Your task to perform on an android device: Open the Play Movies app and select the watchlist tab. Image 0: 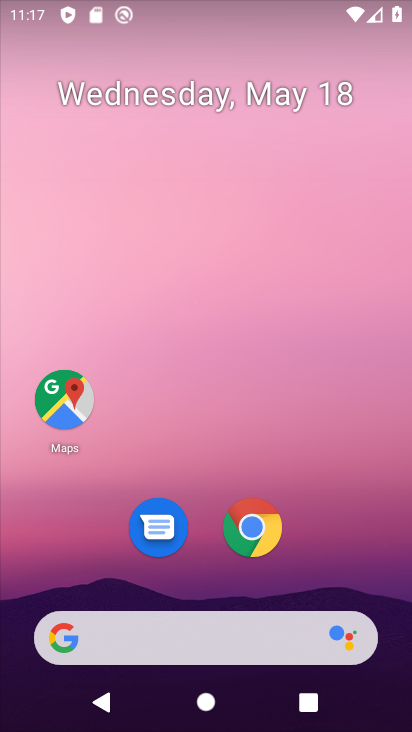
Step 0: drag from (210, 534) to (282, 10)
Your task to perform on an android device: Open the Play Movies app and select the watchlist tab. Image 1: 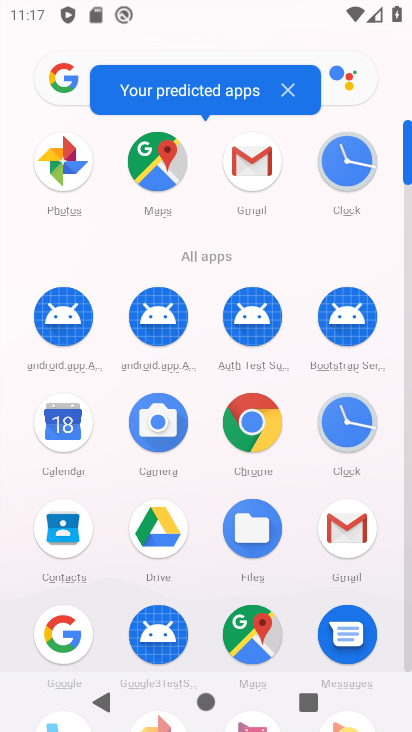
Step 1: drag from (212, 611) to (298, 177)
Your task to perform on an android device: Open the Play Movies app and select the watchlist tab. Image 2: 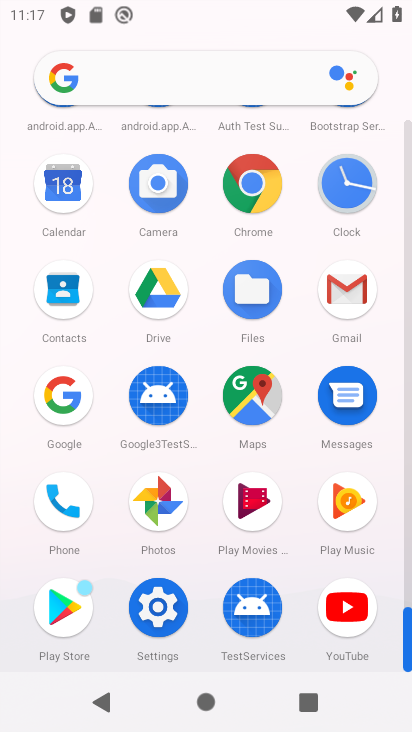
Step 2: click (262, 503)
Your task to perform on an android device: Open the Play Movies app and select the watchlist tab. Image 3: 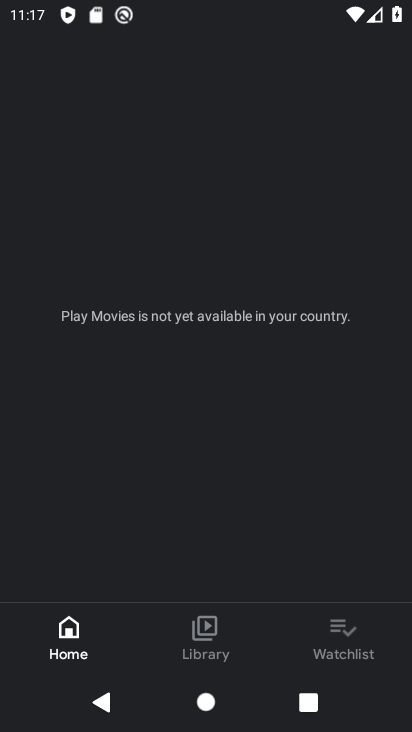
Step 3: click (346, 640)
Your task to perform on an android device: Open the Play Movies app and select the watchlist tab. Image 4: 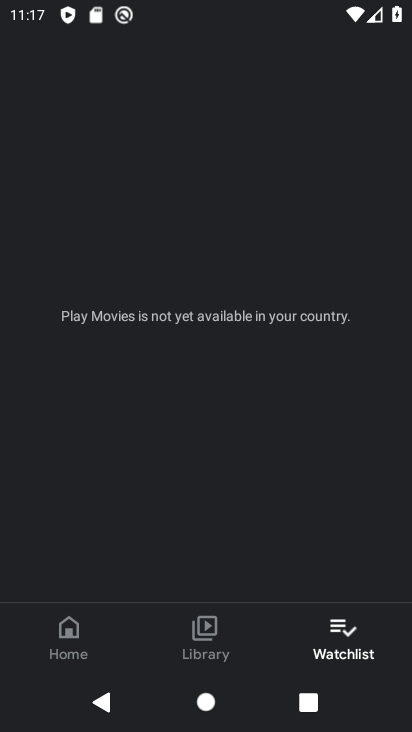
Step 4: task complete